Your task to perform on an android device: turn pop-ups off in chrome Image 0: 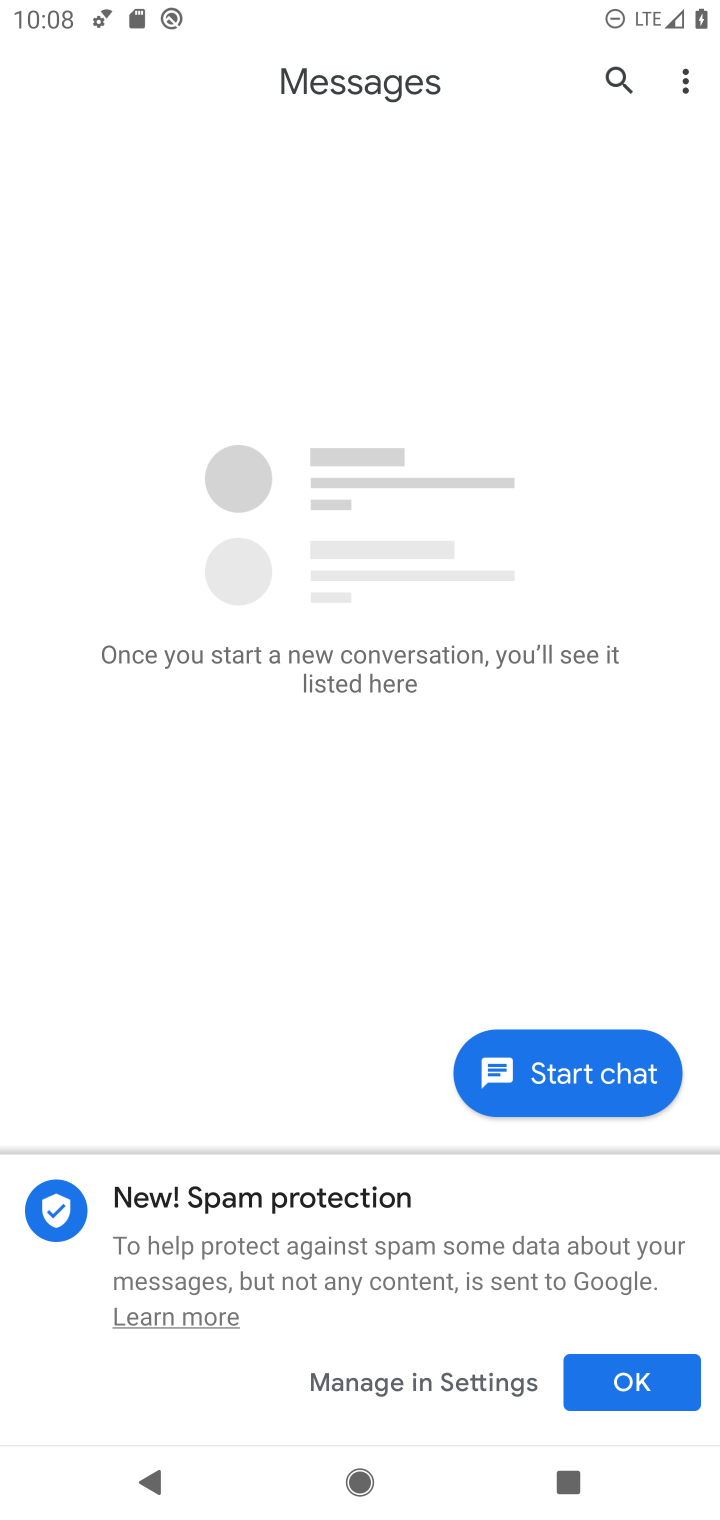
Step 0: press home button
Your task to perform on an android device: turn pop-ups off in chrome Image 1: 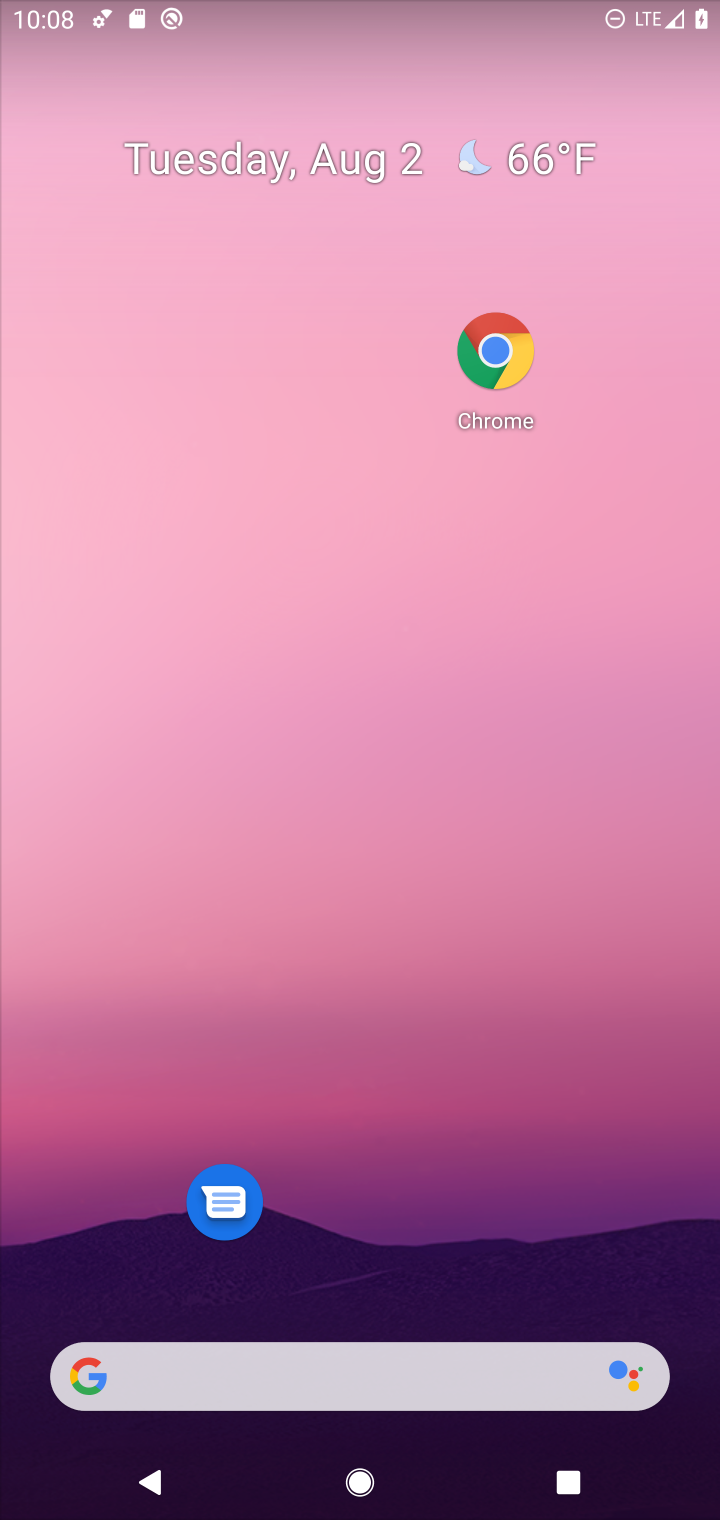
Step 1: click (487, 361)
Your task to perform on an android device: turn pop-ups off in chrome Image 2: 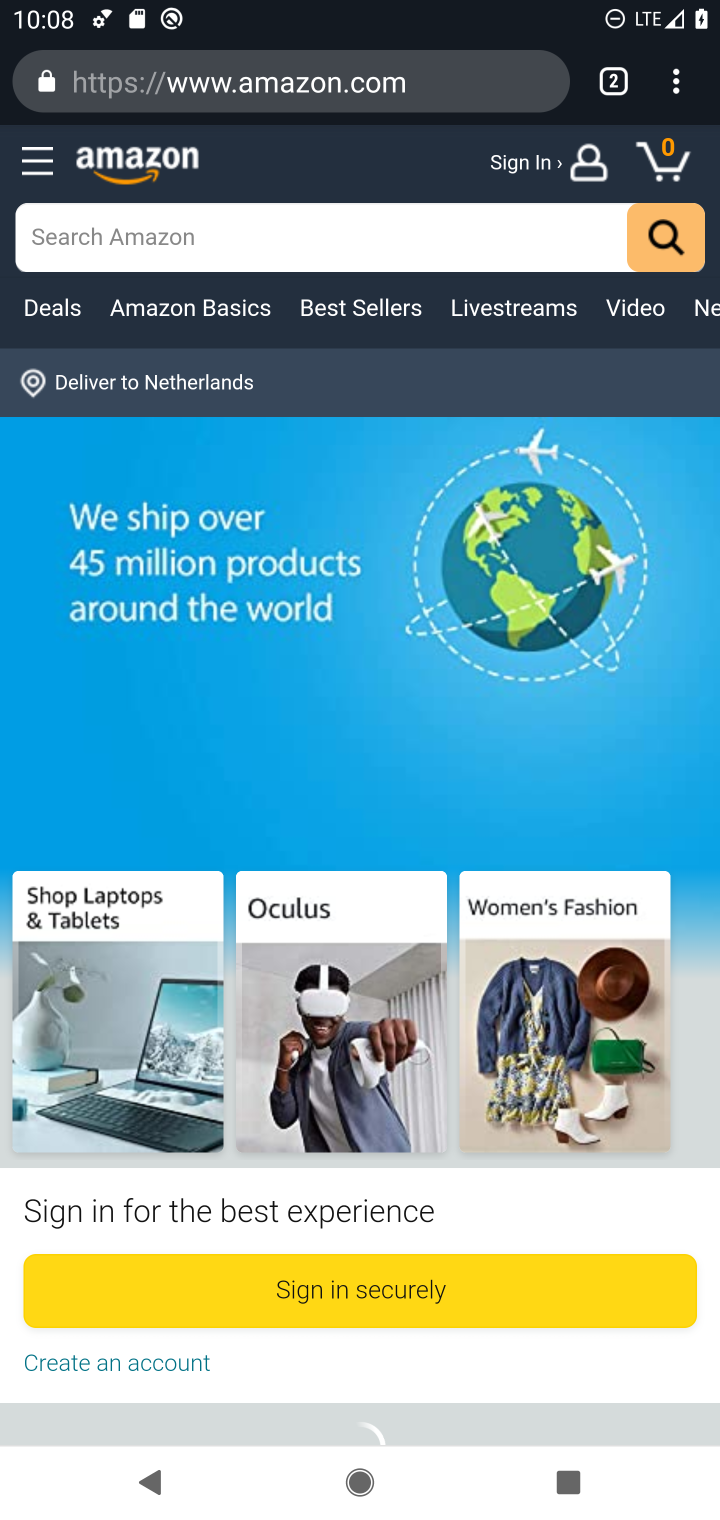
Step 2: drag from (682, 75) to (423, 1014)
Your task to perform on an android device: turn pop-ups off in chrome Image 3: 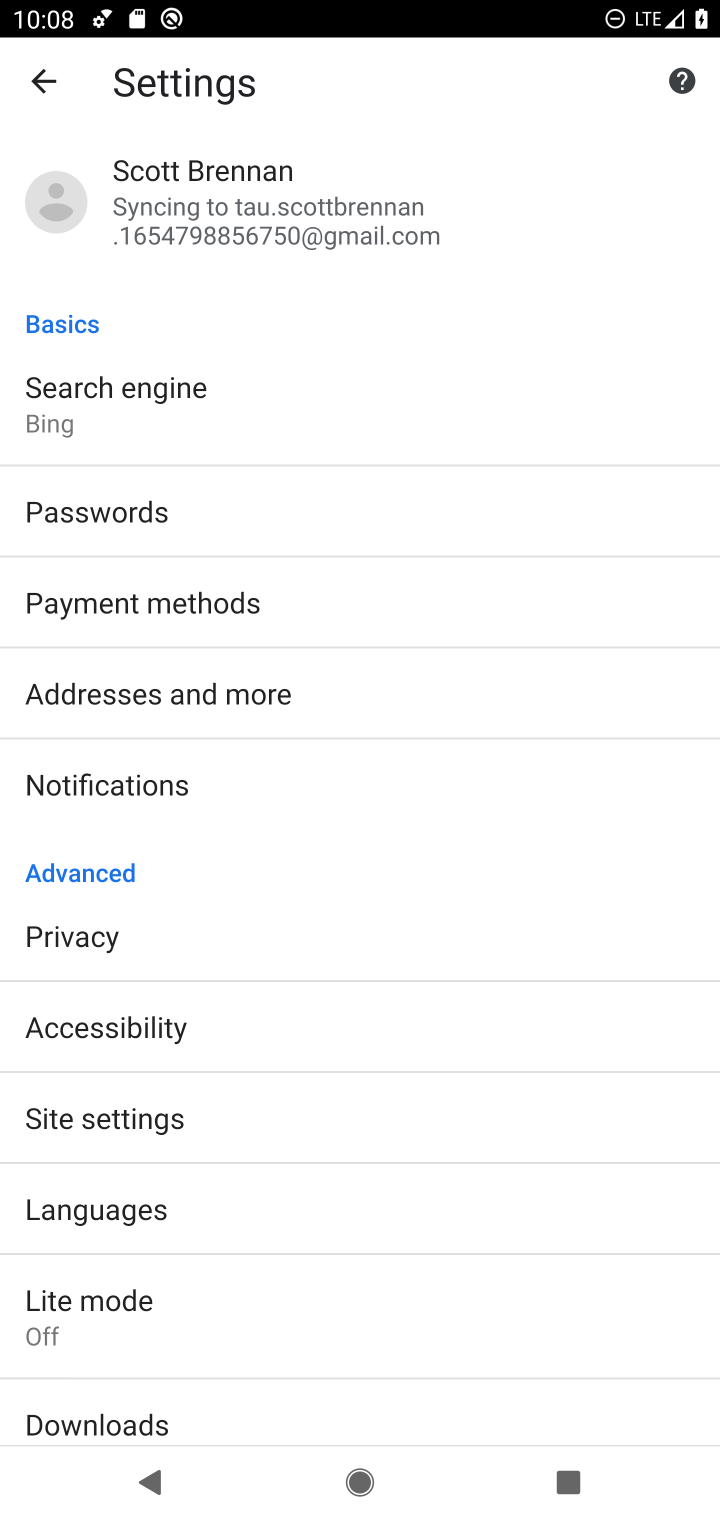
Step 3: click (120, 1120)
Your task to perform on an android device: turn pop-ups off in chrome Image 4: 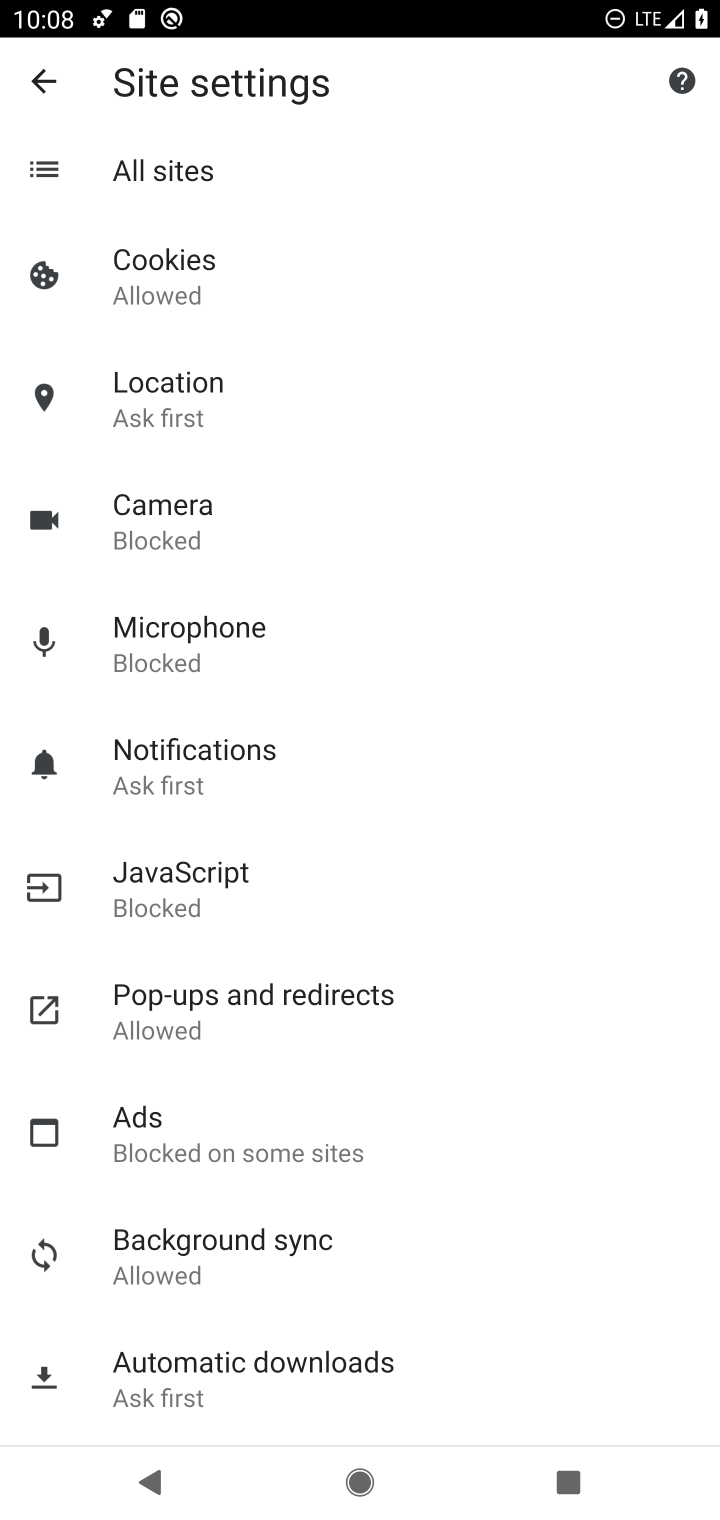
Step 4: click (205, 995)
Your task to perform on an android device: turn pop-ups off in chrome Image 5: 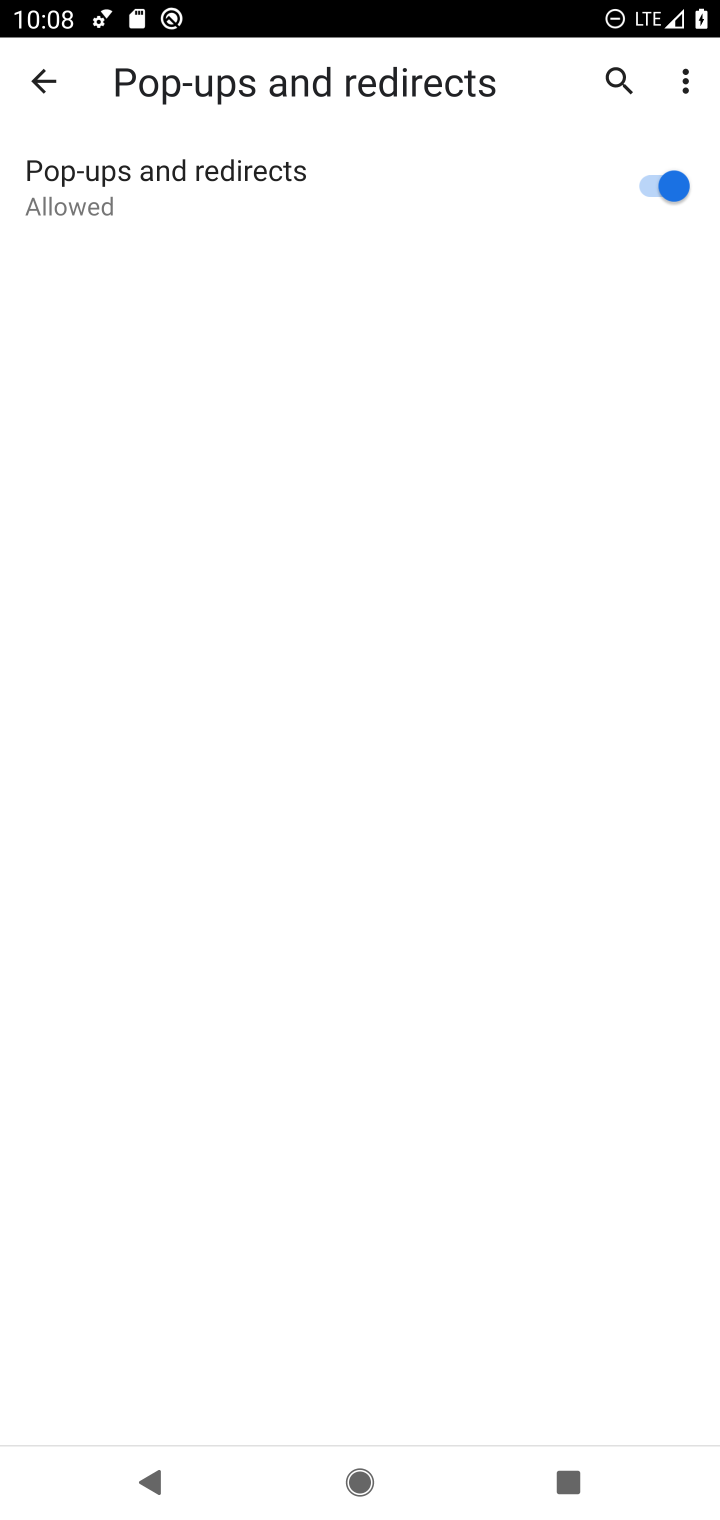
Step 5: click (677, 177)
Your task to perform on an android device: turn pop-ups off in chrome Image 6: 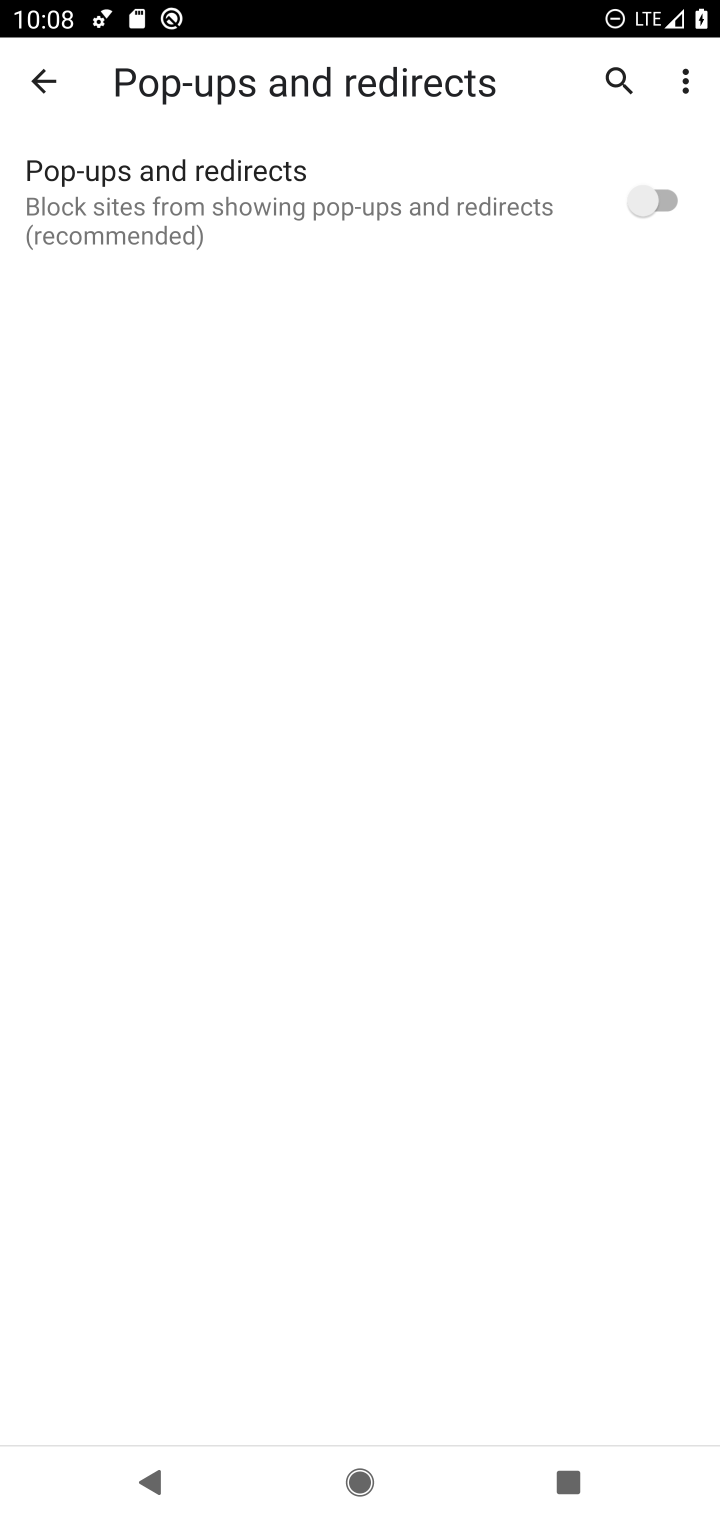
Step 6: task complete